Your task to perform on an android device: Open privacy settings Image 0: 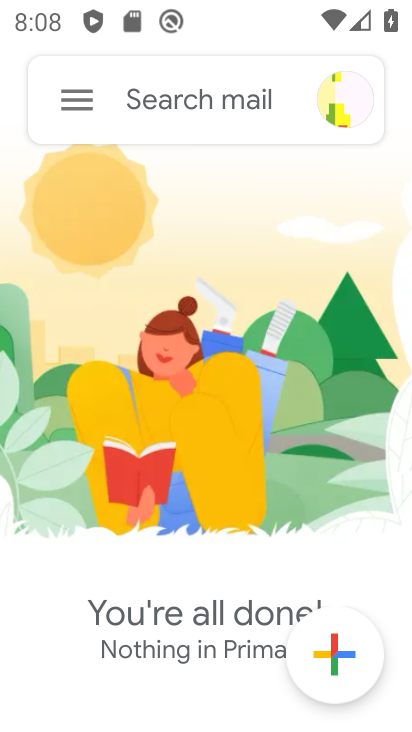
Step 0: press home button
Your task to perform on an android device: Open privacy settings Image 1: 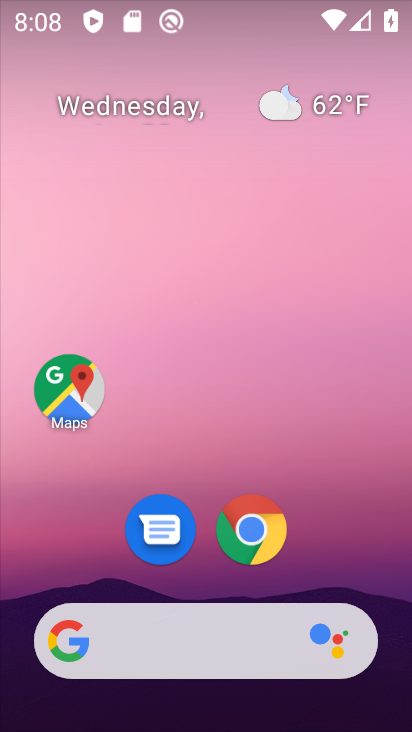
Step 1: drag from (190, 599) to (240, 144)
Your task to perform on an android device: Open privacy settings Image 2: 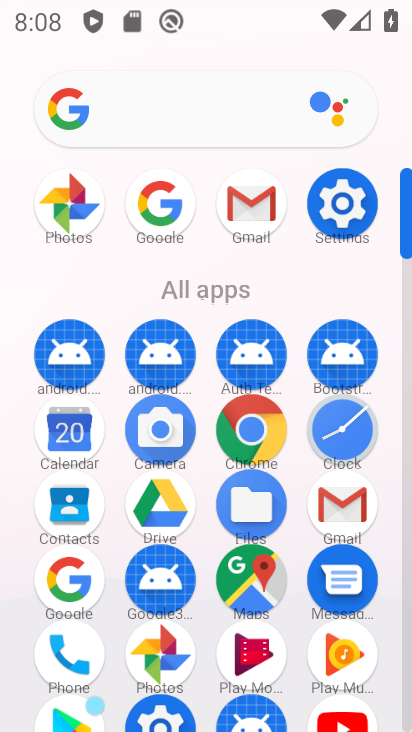
Step 2: click (334, 194)
Your task to perform on an android device: Open privacy settings Image 3: 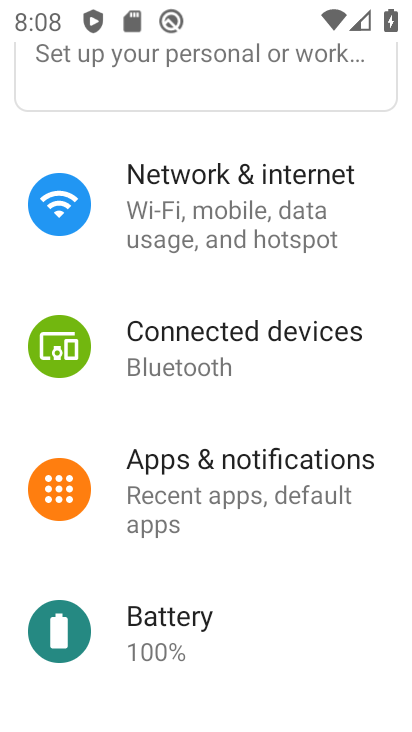
Step 3: drag from (181, 561) to (185, 152)
Your task to perform on an android device: Open privacy settings Image 4: 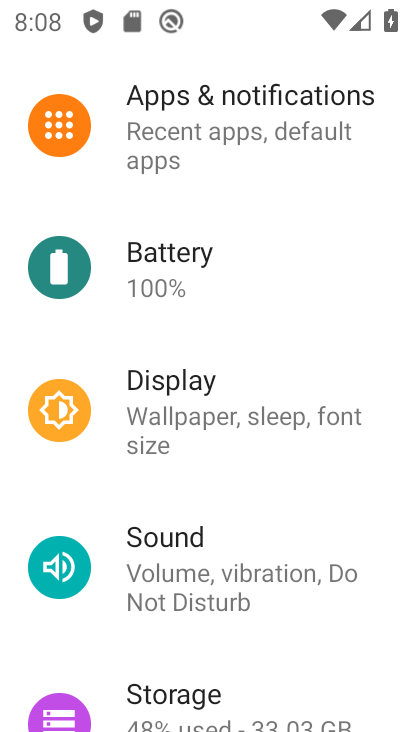
Step 4: drag from (207, 645) to (228, 308)
Your task to perform on an android device: Open privacy settings Image 5: 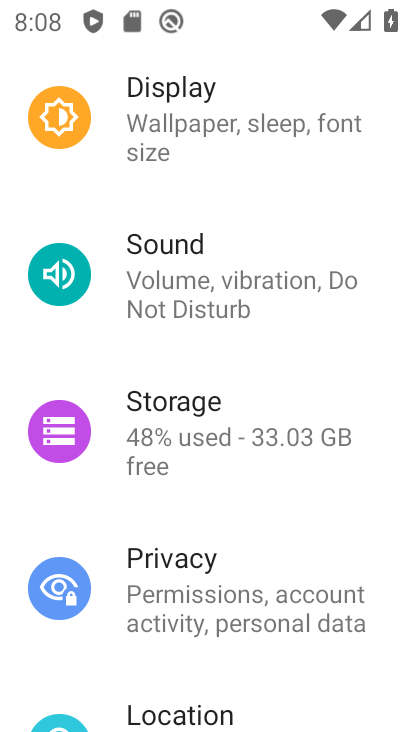
Step 5: click (203, 611)
Your task to perform on an android device: Open privacy settings Image 6: 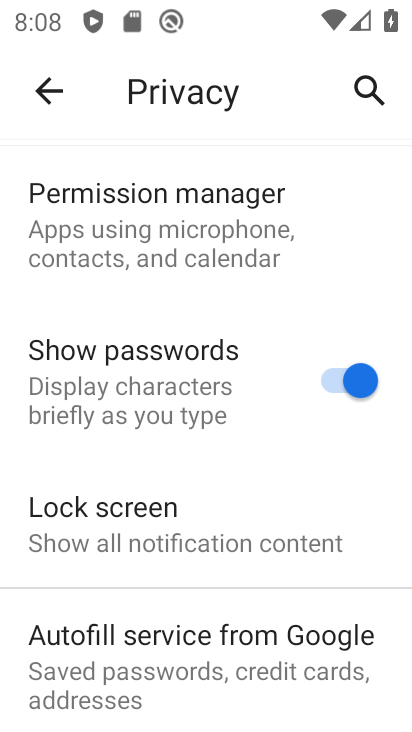
Step 6: task complete